Your task to perform on an android device: Search for Italian restaurants on Maps Image 0: 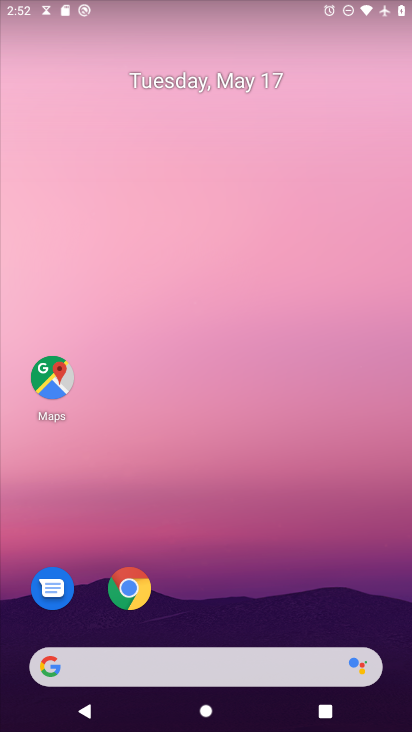
Step 0: click (52, 389)
Your task to perform on an android device: Search for Italian restaurants on Maps Image 1: 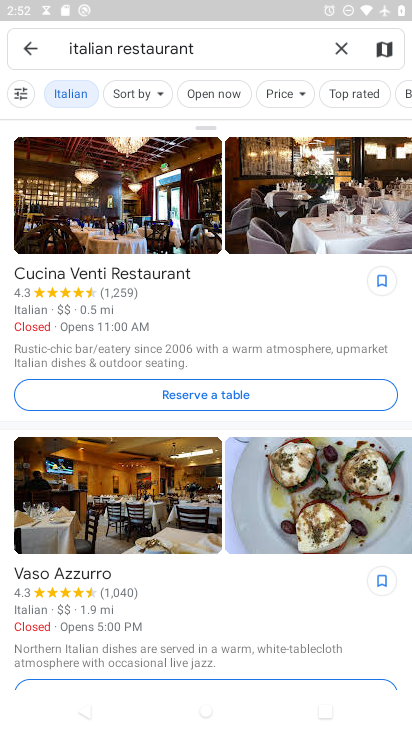
Step 1: click (342, 46)
Your task to perform on an android device: Search for Italian restaurants on Maps Image 2: 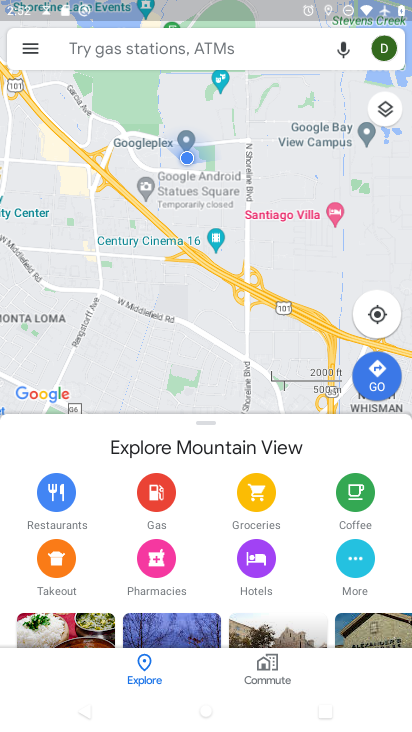
Step 2: click (189, 54)
Your task to perform on an android device: Search for Italian restaurants on Maps Image 3: 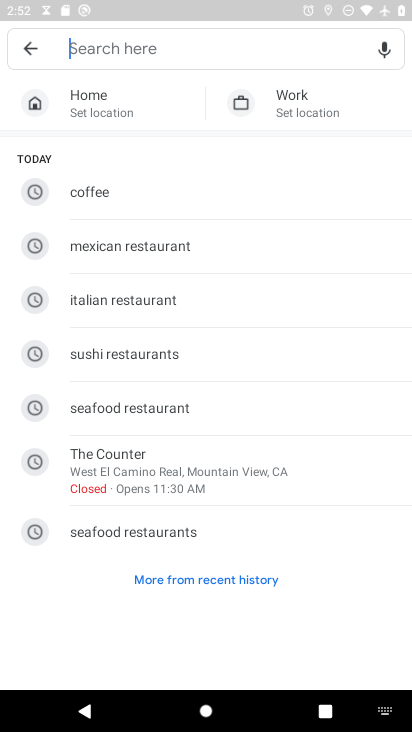
Step 3: click (133, 297)
Your task to perform on an android device: Search for Italian restaurants on Maps Image 4: 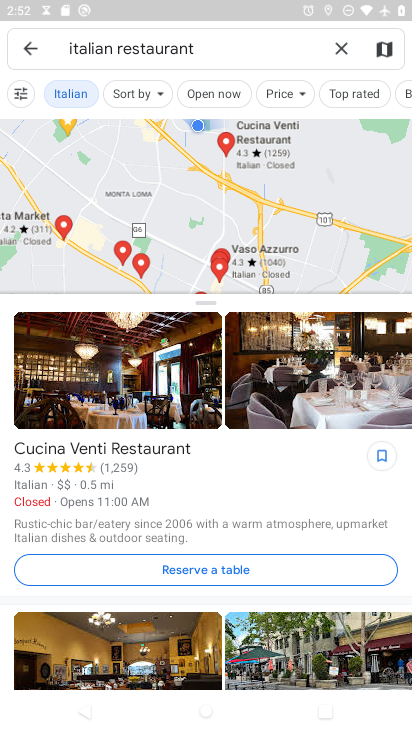
Step 4: task complete